Your task to perform on an android device: star an email in the gmail app Image 0: 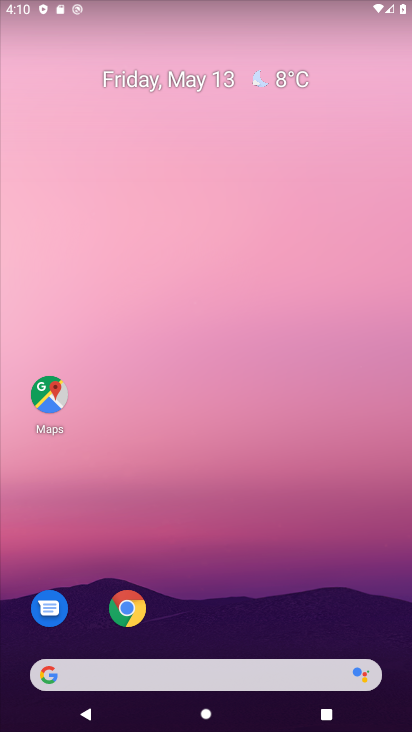
Step 0: drag from (247, 588) to (250, 51)
Your task to perform on an android device: star an email in the gmail app Image 1: 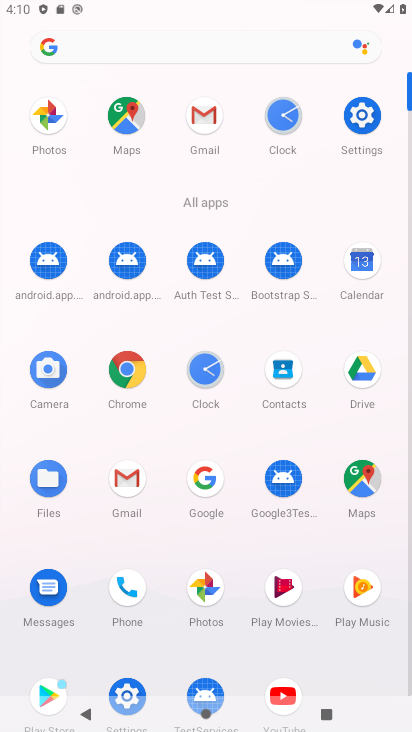
Step 1: drag from (162, 613) to (165, 303)
Your task to perform on an android device: star an email in the gmail app Image 2: 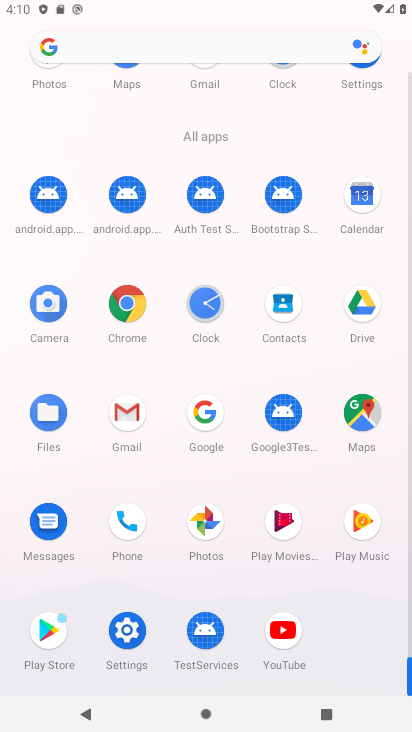
Step 2: click (127, 410)
Your task to perform on an android device: star an email in the gmail app Image 3: 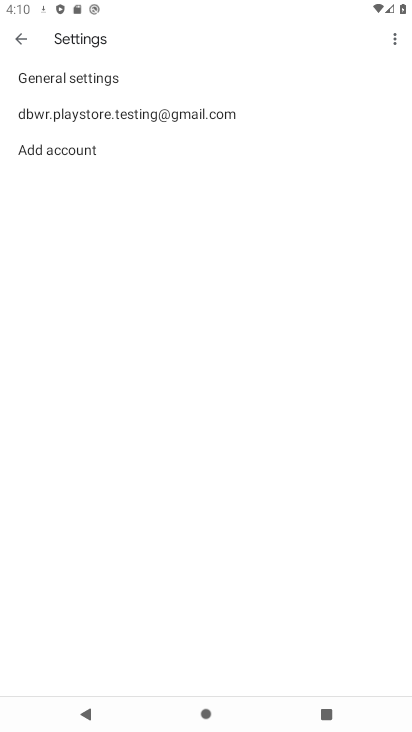
Step 3: click (98, 114)
Your task to perform on an android device: star an email in the gmail app Image 4: 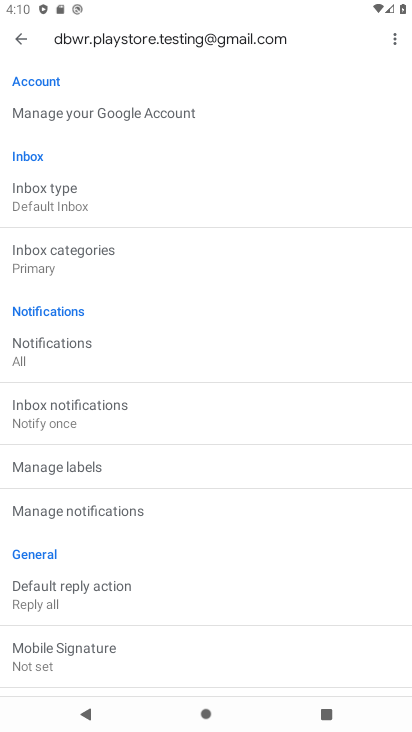
Step 4: press back button
Your task to perform on an android device: star an email in the gmail app Image 5: 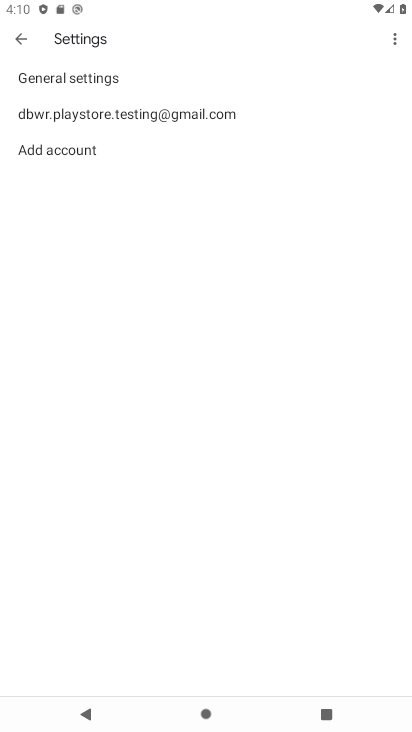
Step 5: press back button
Your task to perform on an android device: star an email in the gmail app Image 6: 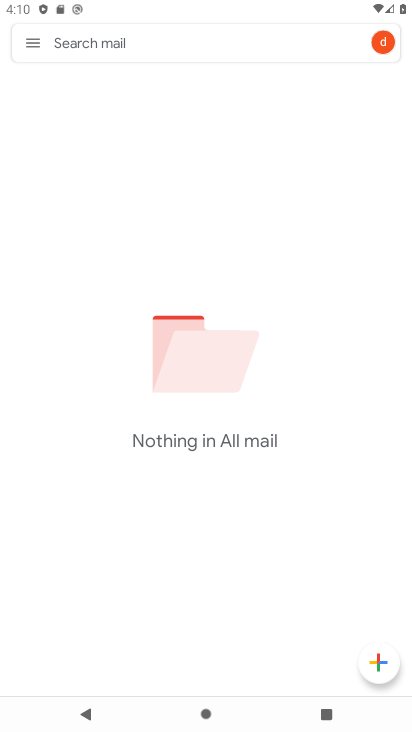
Step 6: click (26, 37)
Your task to perform on an android device: star an email in the gmail app Image 7: 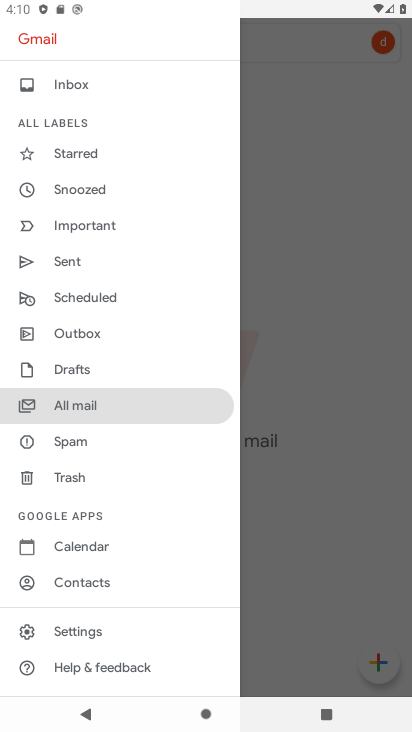
Step 7: drag from (79, 512) to (121, 430)
Your task to perform on an android device: star an email in the gmail app Image 8: 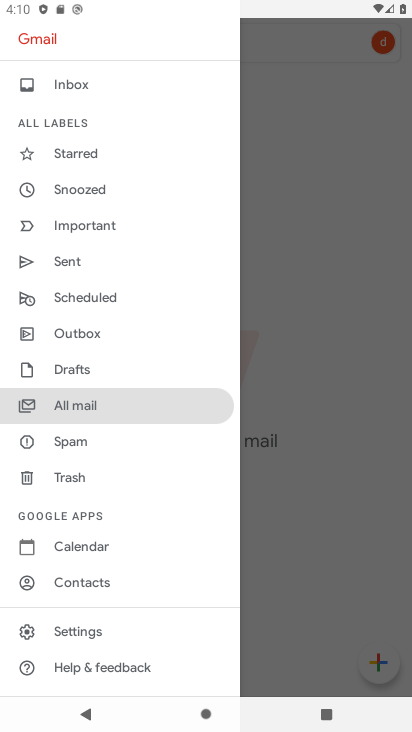
Step 8: click (89, 159)
Your task to perform on an android device: star an email in the gmail app Image 9: 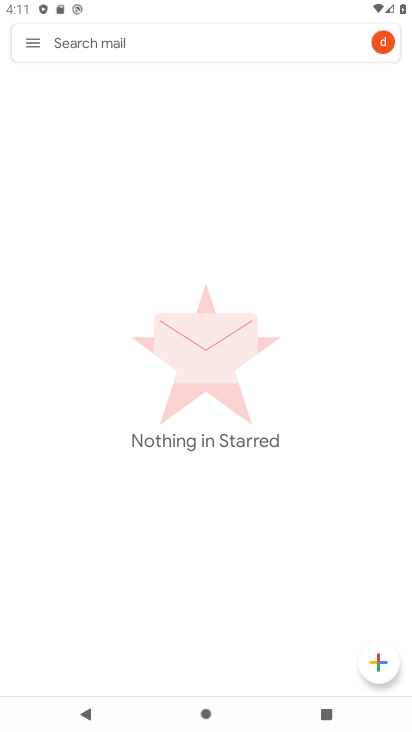
Step 9: task complete